Your task to perform on an android device: See recent photos Image 0: 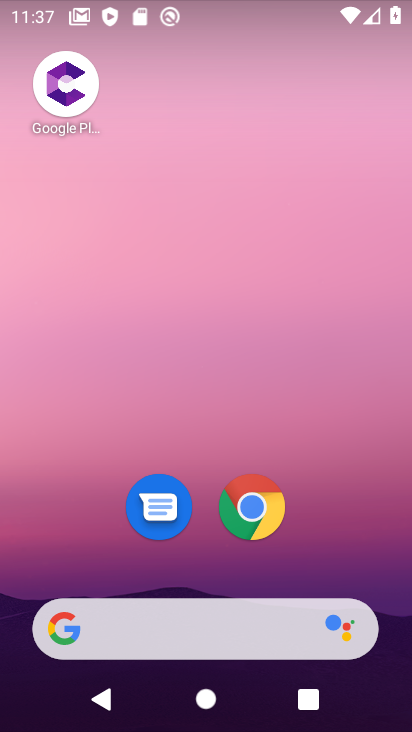
Step 0: drag from (340, 560) to (310, 110)
Your task to perform on an android device: See recent photos Image 1: 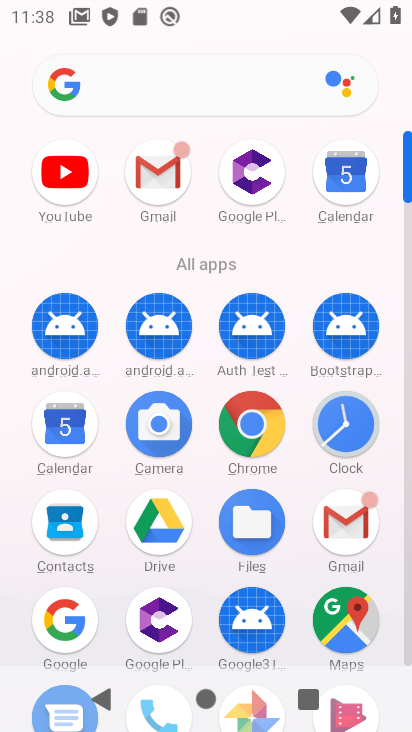
Step 1: drag from (203, 574) to (178, 133)
Your task to perform on an android device: See recent photos Image 2: 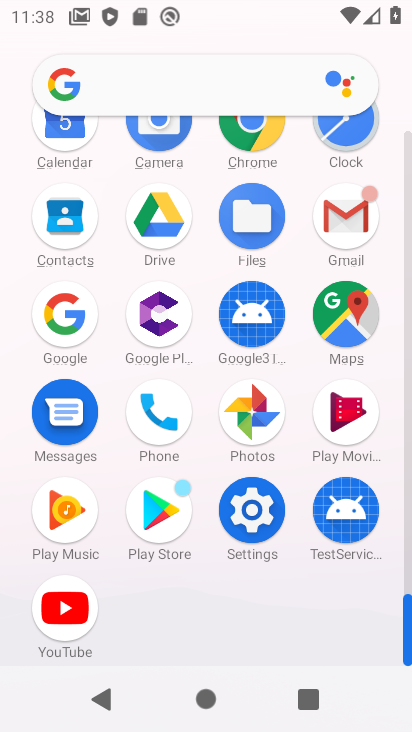
Step 2: click (257, 408)
Your task to perform on an android device: See recent photos Image 3: 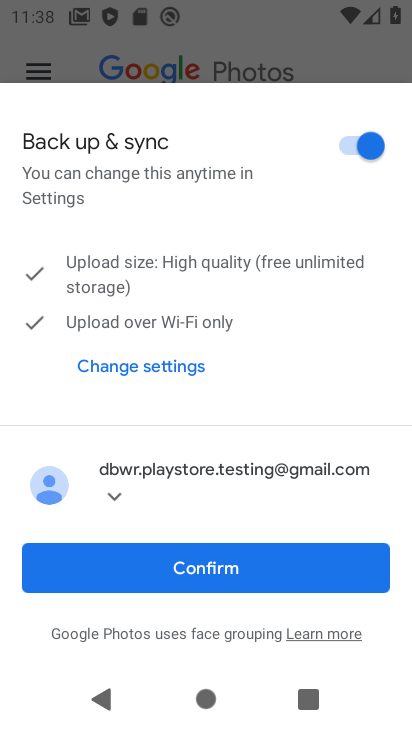
Step 3: click (207, 565)
Your task to perform on an android device: See recent photos Image 4: 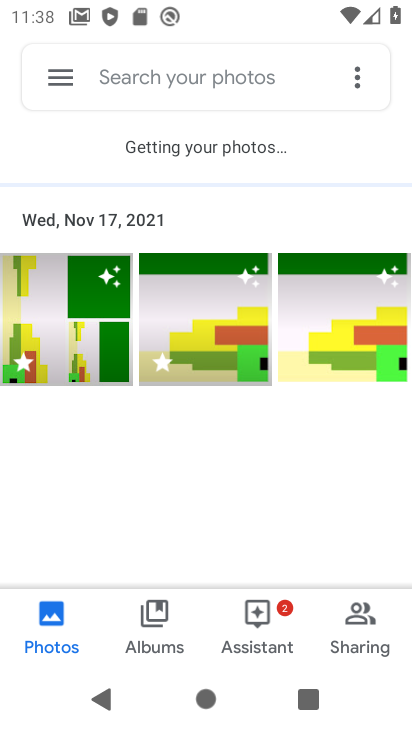
Step 4: task complete